Your task to perform on an android device: move a message to another label in the gmail app Image 0: 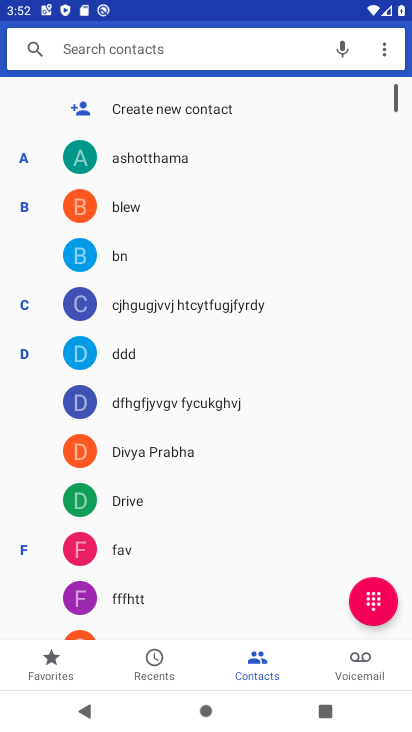
Step 0: press home button
Your task to perform on an android device: move a message to another label in the gmail app Image 1: 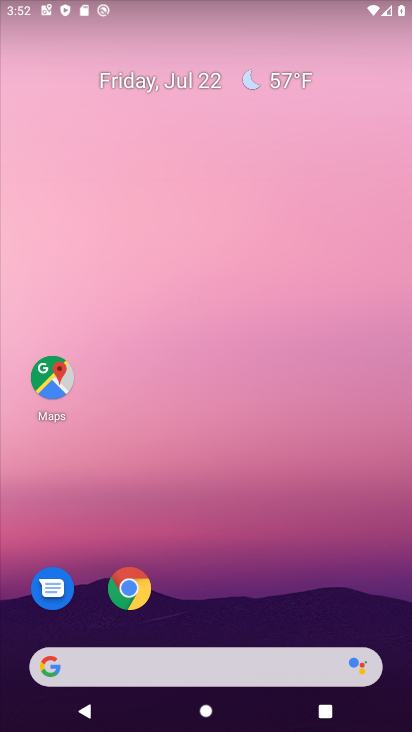
Step 1: drag from (214, 634) to (194, 32)
Your task to perform on an android device: move a message to another label in the gmail app Image 2: 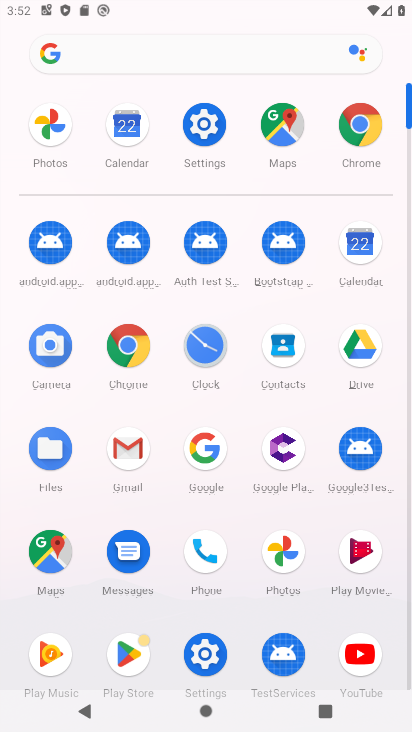
Step 2: click (143, 446)
Your task to perform on an android device: move a message to another label in the gmail app Image 3: 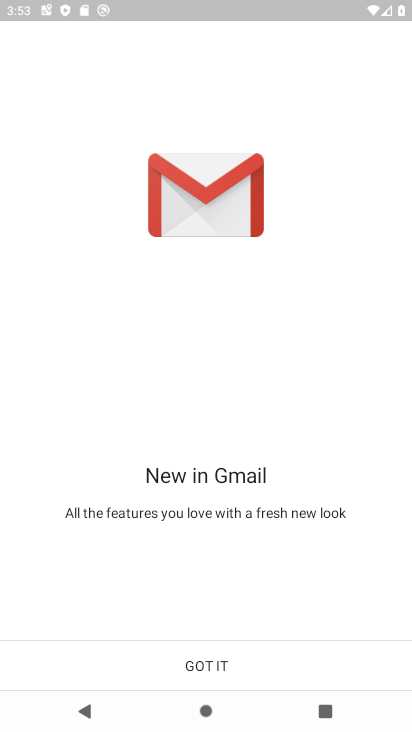
Step 3: click (276, 662)
Your task to perform on an android device: move a message to another label in the gmail app Image 4: 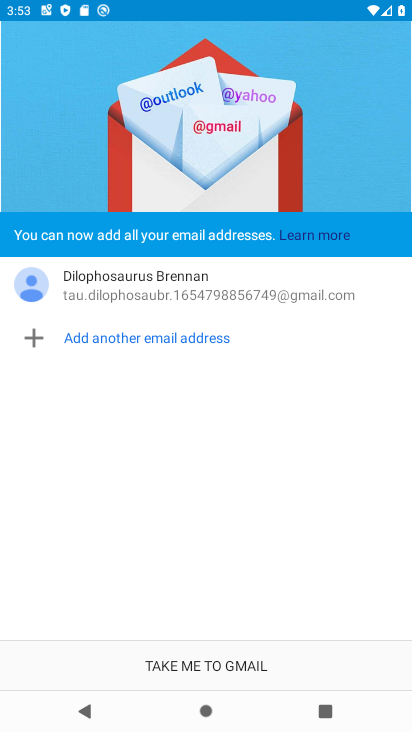
Step 4: click (166, 675)
Your task to perform on an android device: move a message to another label in the gmail app Image 5: 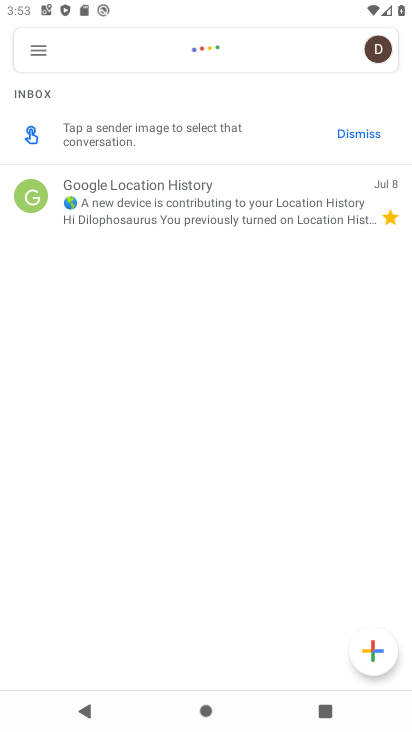
Step 5: click (190, 207)
Your task to perform on an android device: move a message to another label in the gmail app Image 6: 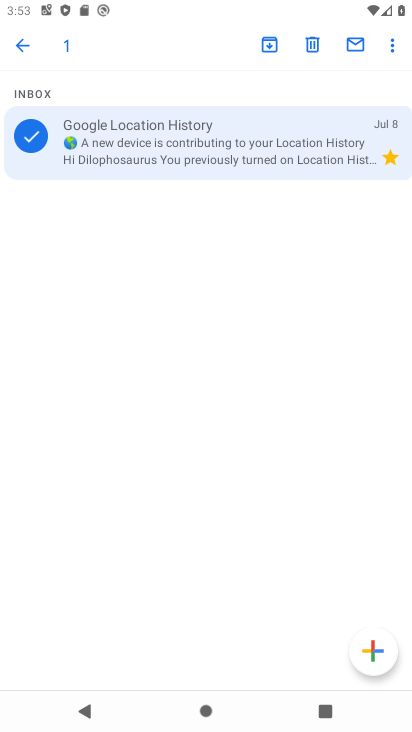
Step 6: click (383, 42)
Your task to perform on an android device: move a message to another label in the gmail app Image 7: 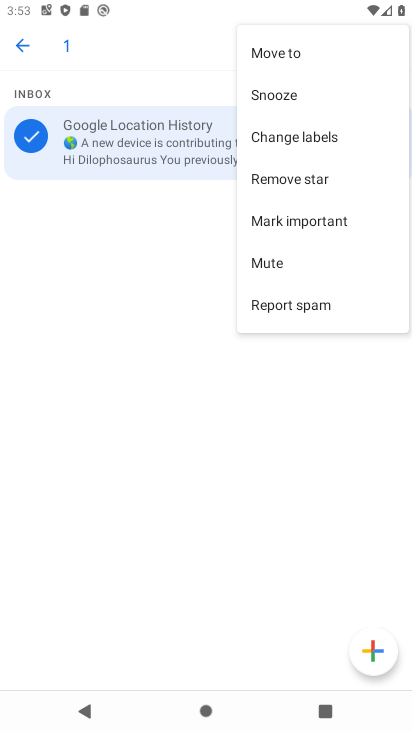
Step 7: click (273, 136)
Your task to perform on an android device: move a message to another label in the gmail app Image 8: 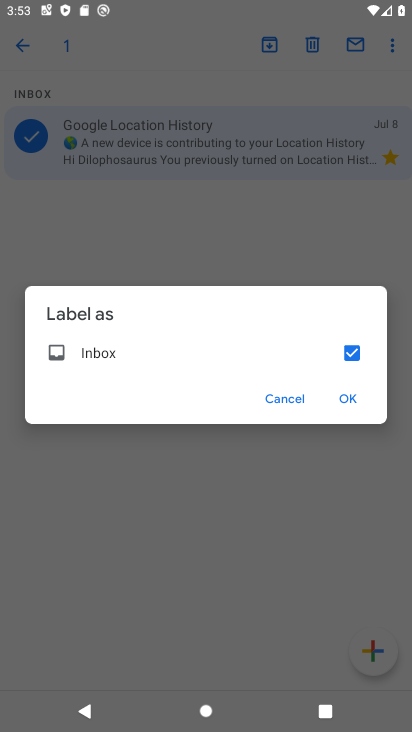
Step 8: click (350, 351)
Your task to perform on an android device: move a message to another label in the gmail app Image 9: 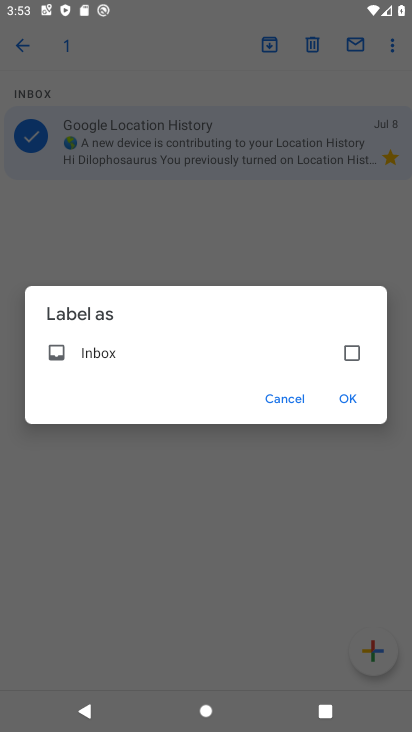
Step 9: click (351, 399)
Your task to perform on an android device: move a message to another label in the gmail app Image 10: 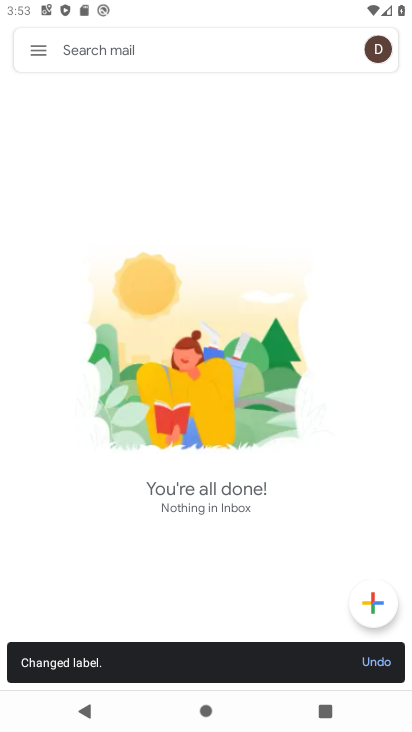
Step 10: task complete